Your task to perform on an android device: toggle data saver in the chrome app Image 0: 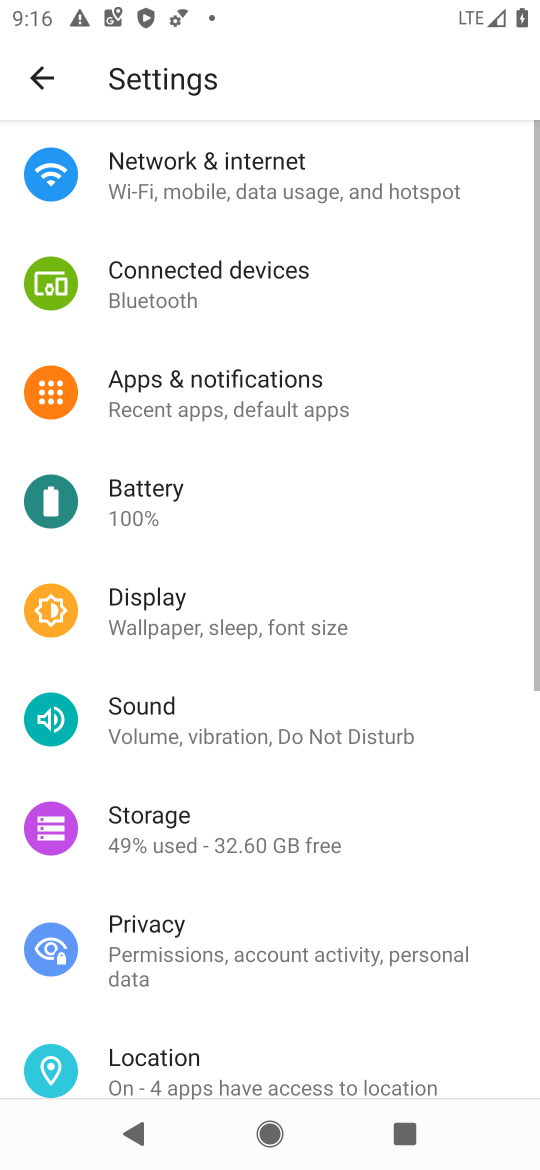
Step 0: press home button
Your task to perform on an android device: toggle data saver in the chrome app Image 1: 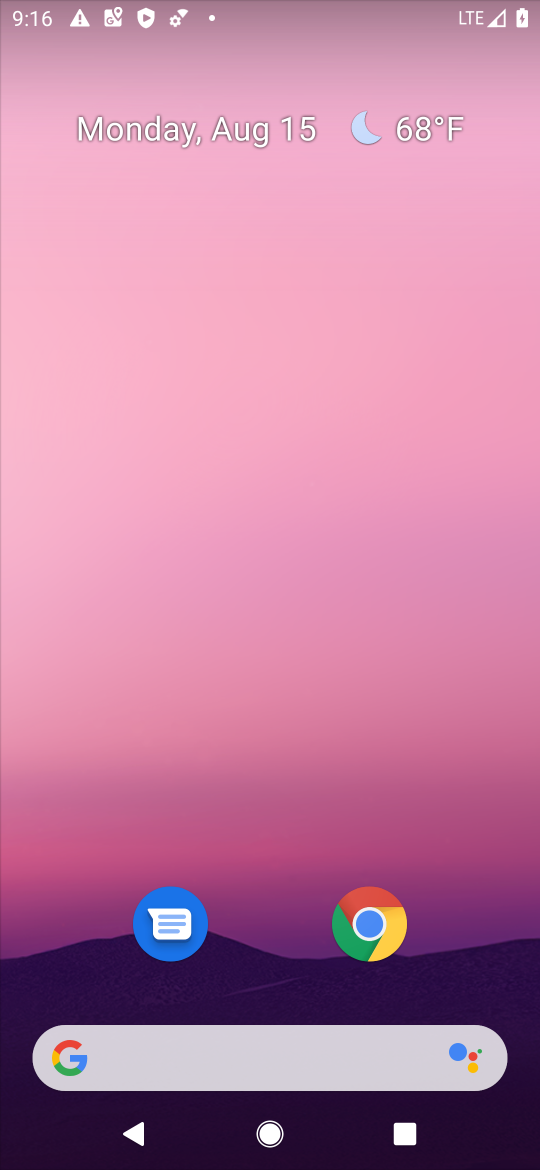
Step 1: click (365, 921)
Your task to perform on an android device: toggle data saver in the chrome app Image 2: 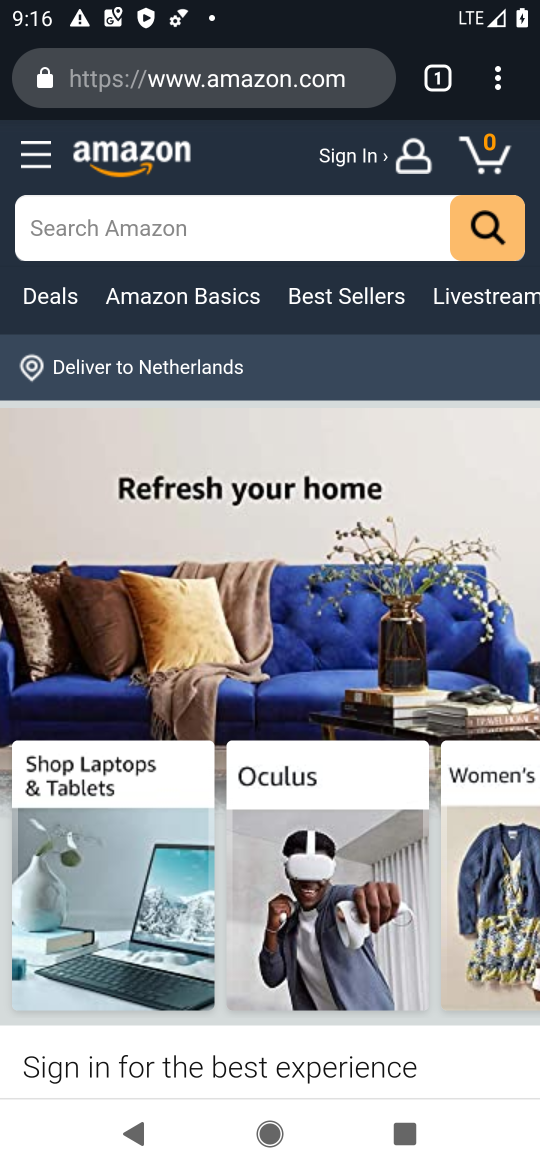
Step 2: click (490, 91)
Your task to perform on an android device: toggle data saver in the chrome app Image 3: 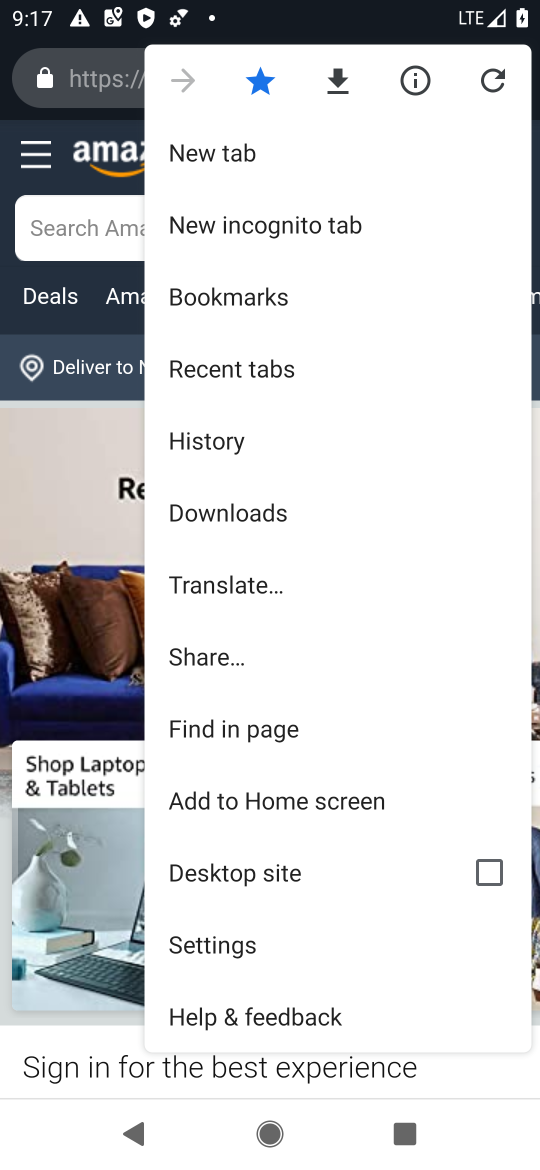
Step 3: click (223, 942)
Your task to perform on an android device: toggle data saver in the chrome app Image 4: 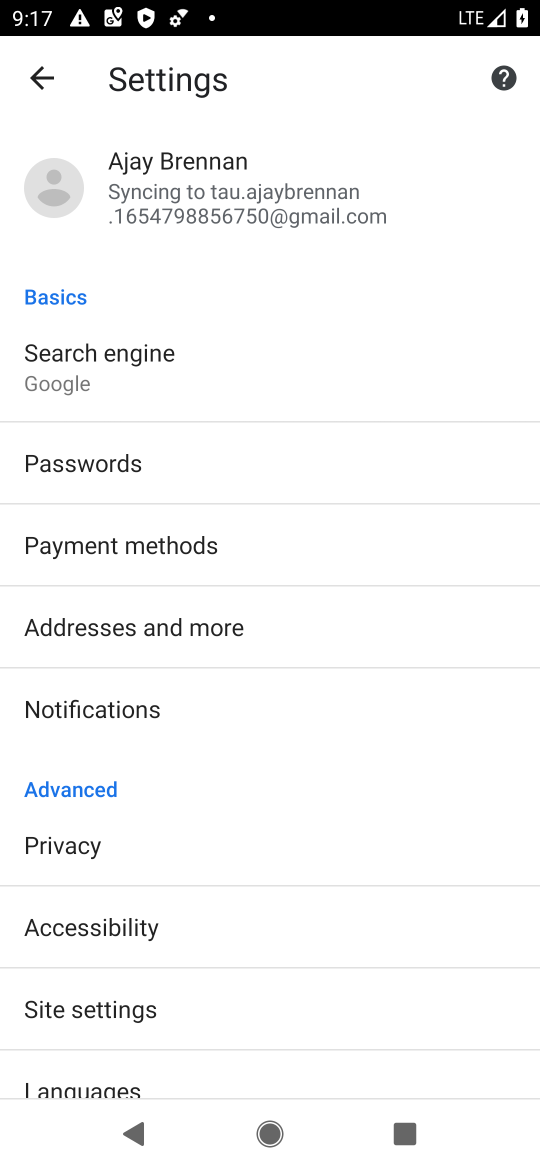
Step 4: drag from (306, 987) to (297, 389)
Your task to perform on an android device: toggle data saver in the chrome app Image 5: 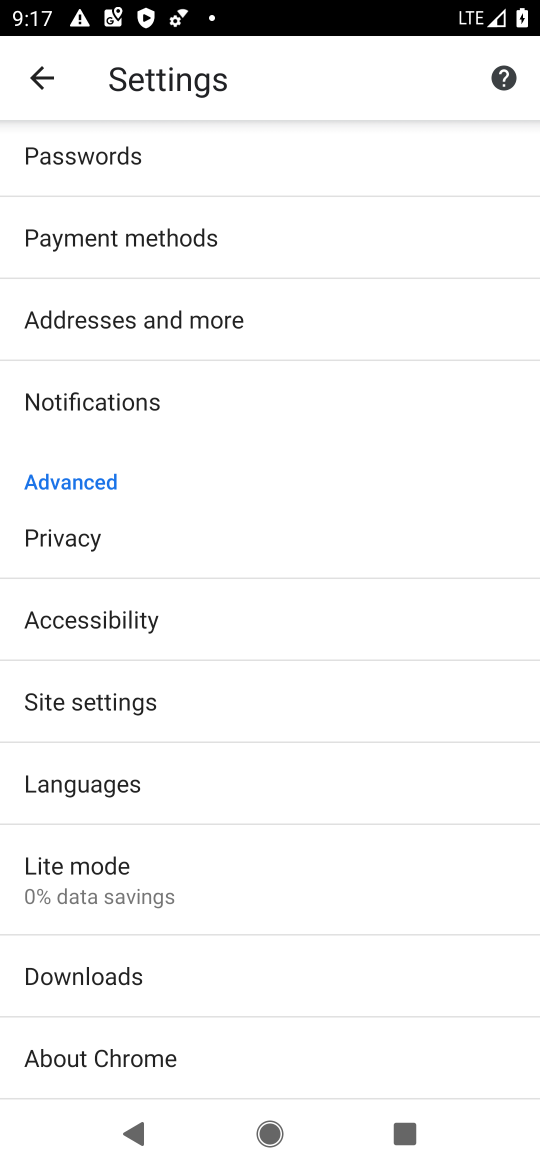
Step 5: click (66, 878)
Your task to perform on an android device: toggle data saver in the chrome app Image 6: 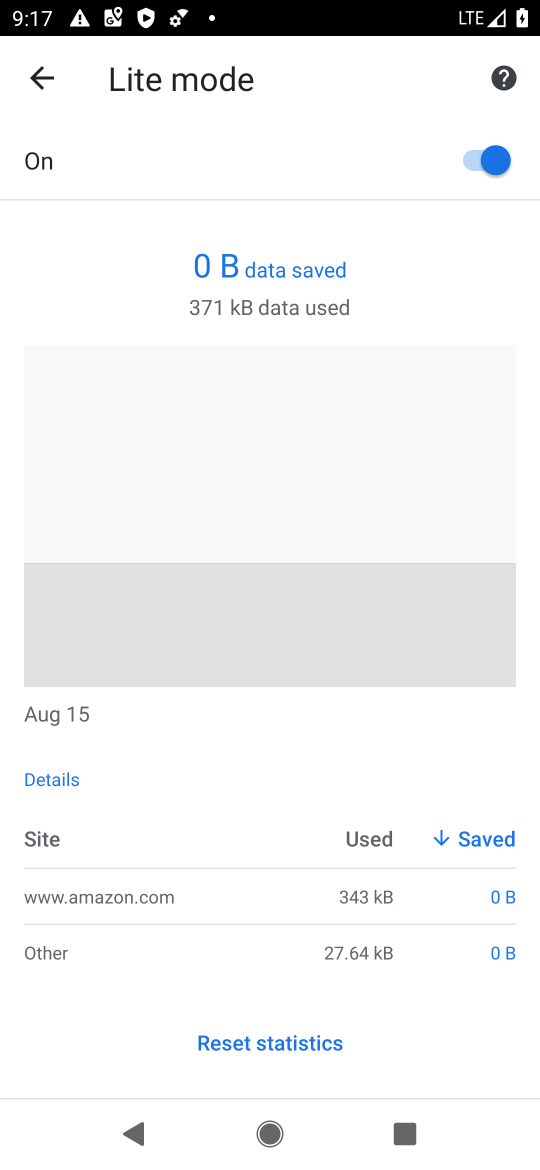
Step 6: click (462, 149)
Your task to perform on an android device: toggle data saver in the chrome app Image 7: 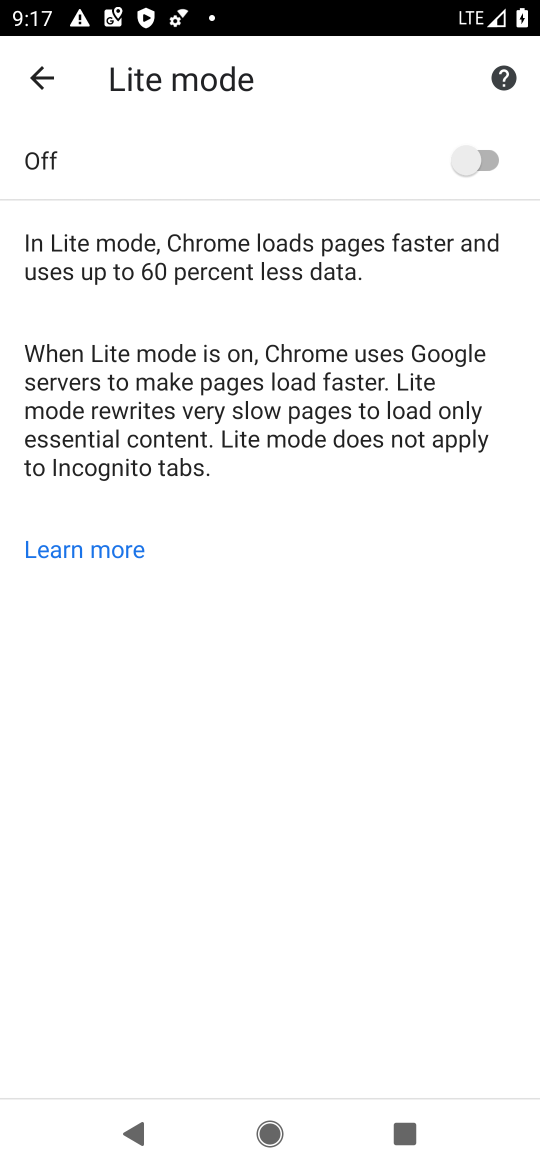
Step 7: task complete